Your task to perform on an android device: Search for vegetarian restaurants on Maps Image 0: 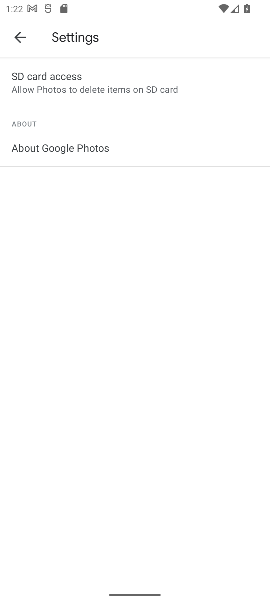
Step 0: press home button
Your task to perform on an android device: Search for vegetarian restaurants on Maps Image 1: 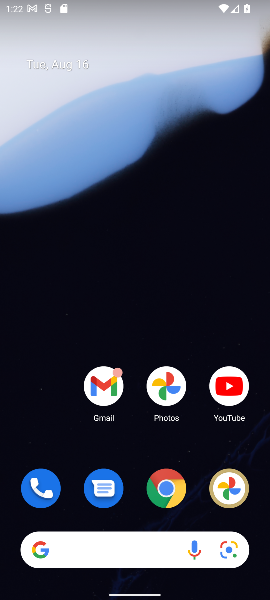
Step 1: drag from (153, 313) to (172, 70)
Your task to perform on an android device: Search for vegetarian restaurants on Maps Image 2: 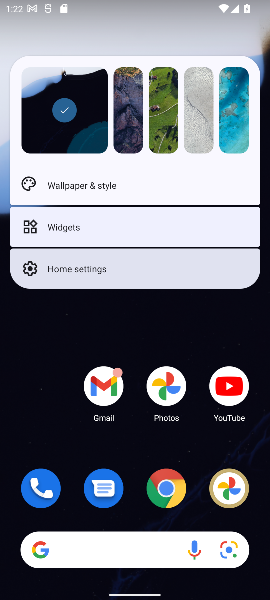
Step 2: click (138, 317)
Your task to perform on an android device: Search for vegetarian restaurants on Maps Image 3: 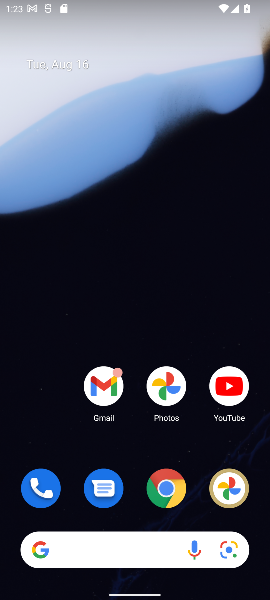
Step 3: drag from (67, 371) to (108, 159)
Your task to perform on an android device: Search for vegetarian restaurants on Maps Image 4: 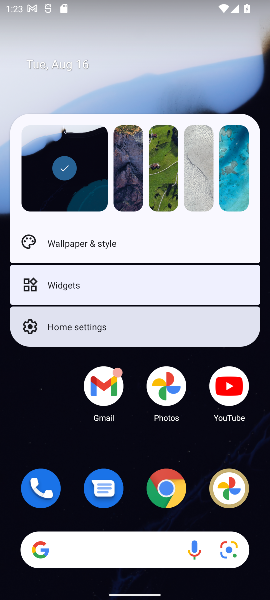
Step 4: click (46, 369)
Your task to perform on an android device: Search for vegetarian restaurants on Maps Image 5: 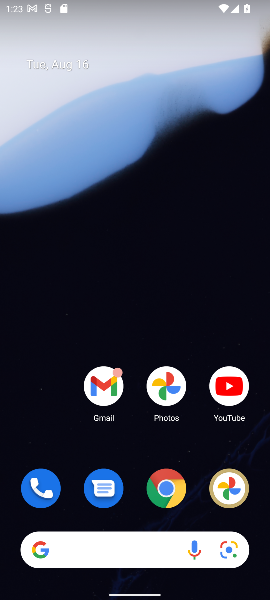
Step 5: task complete